Your task to perform on an android device: see sites visited before in the chrome app Image 0: 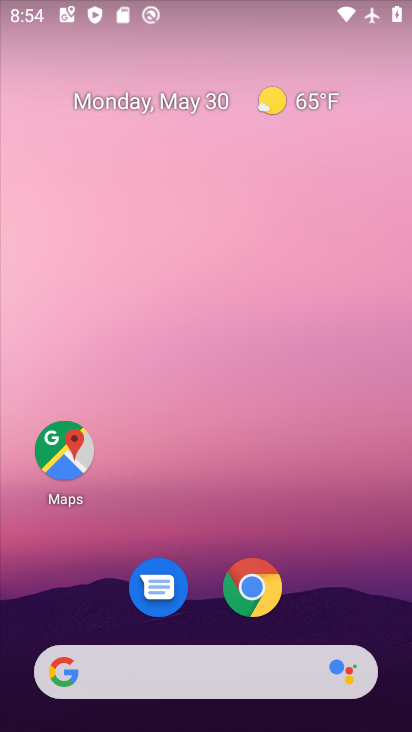
Step 0: click (256, 589)
Your task to perform on an android device: see sites visited before in the chrome app Image 1: 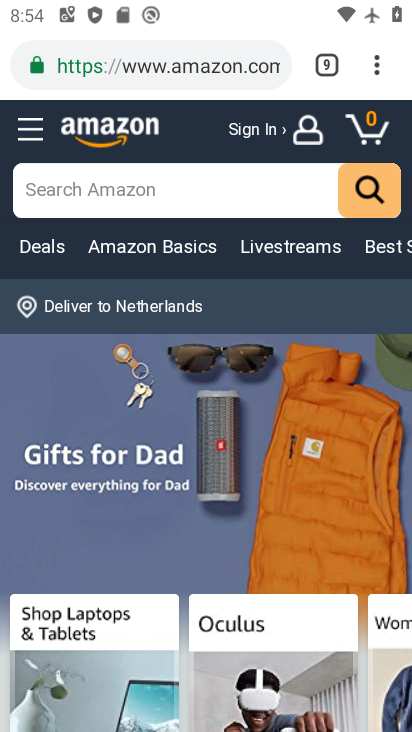
Step 1: task complete